Your task to perform on an android device: What's on my calendar tomorrow? Image 0: 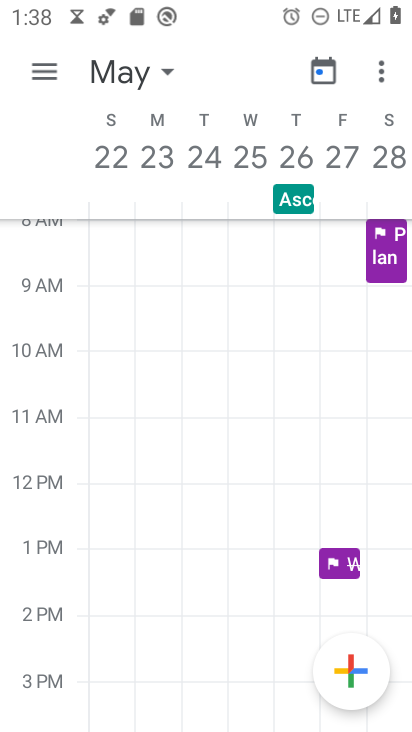
Step 0: press home button
Your task to perform on an android device: What's on my calendar tomorrow? Image 1: 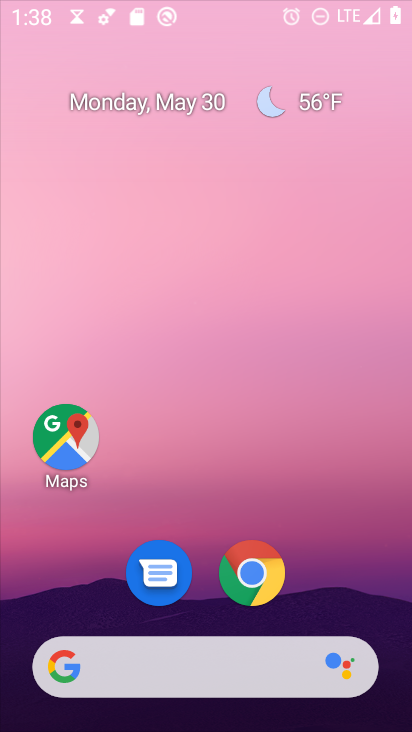
Step 1: drag from (228, 657) to (171, 7)
Your task to perform on an android device: What's on my calendar tomorrow? Image 2: 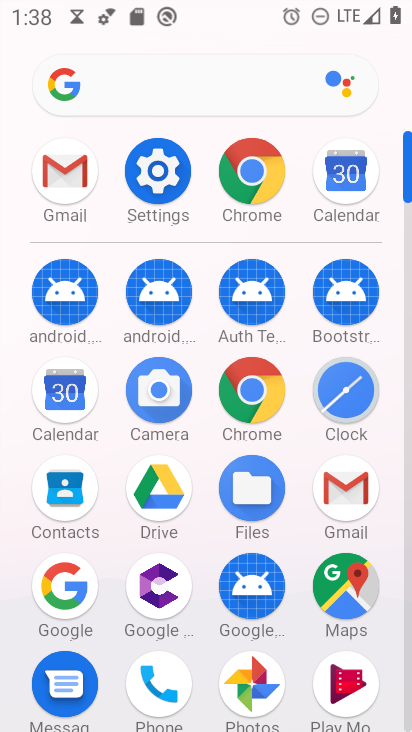
Step 2: click (71, 388)
Your task to perform on an android device: What's on my calendar tomorrow? Image 3: 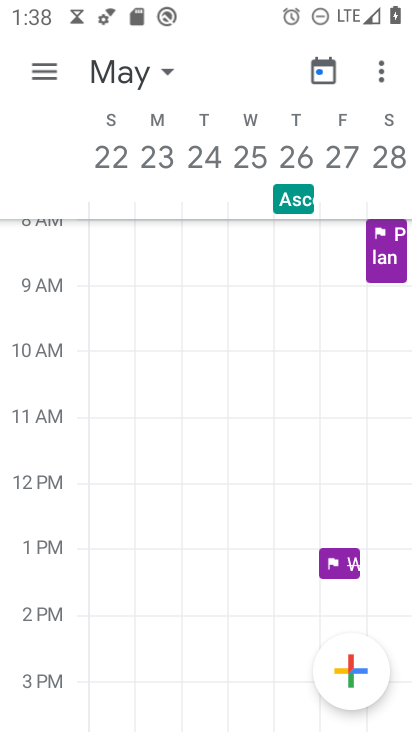
Step 3: click (167, 62)
Your task to perform on an android device: What's on my calendar tomorrow? Image 4: 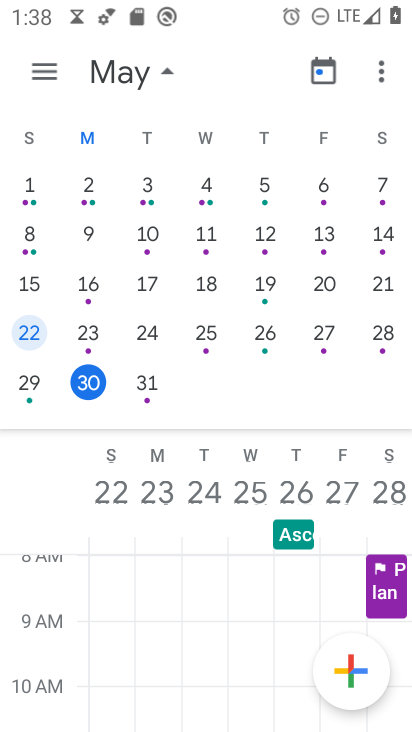
Step 4: click (129, 381)
Your task to perform on an android device: What's on my calendar tomorrow? Image 5: 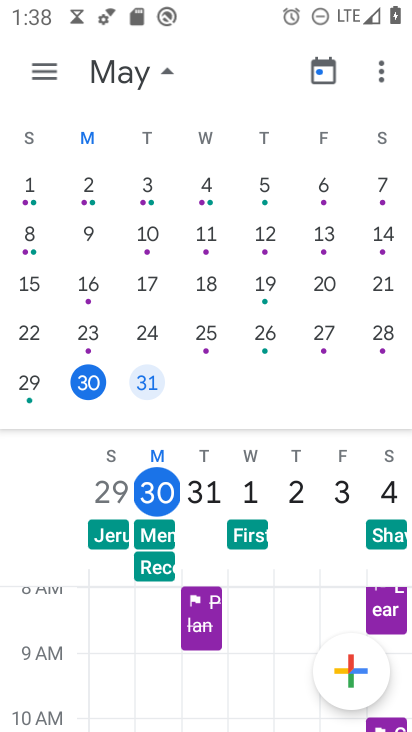
Step 5: click (148, 383)
Your task to perform on an android device: What's on my calendar tomorrow? Image 6: 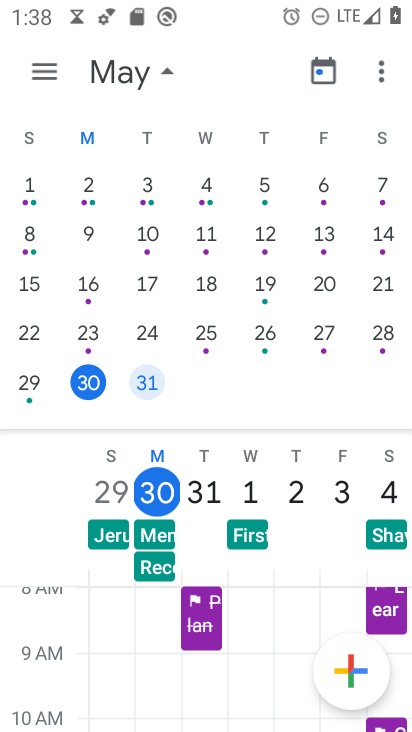
Step 6: task complete